Your task to perform on an android device: Show me popular videos on Youtube Image 0: 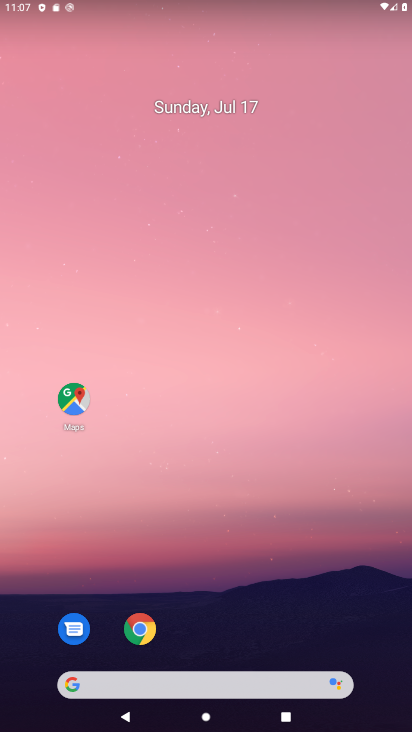
Step 0: drag from (222, 630) to (218, 251)
Your task to perform on an android device: Show me popular videos on Youtube Image 1: 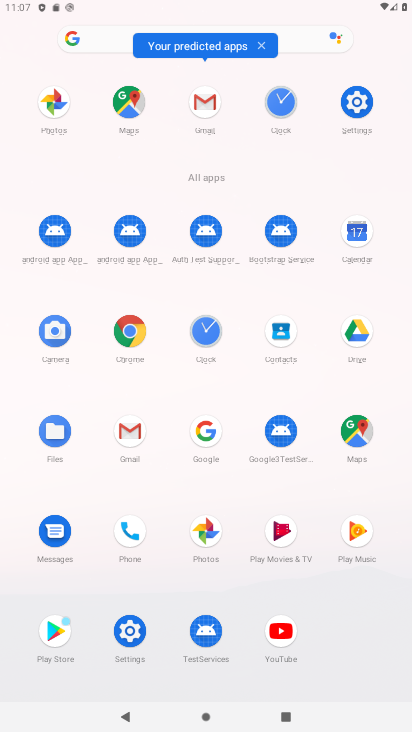
Step 1: click (278, 627)
Your task to perform on an android device: Show me popular videos on Youtube Image 2: 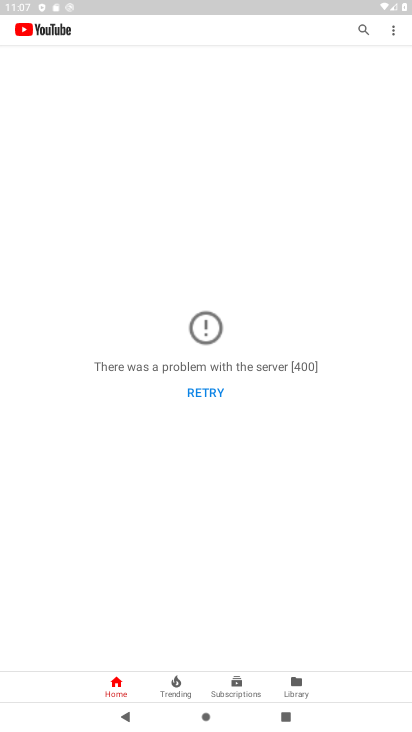
Step 2: click (357, 25)
Your task to perform on an android device: Show me popular videos on Youtube Image 3: 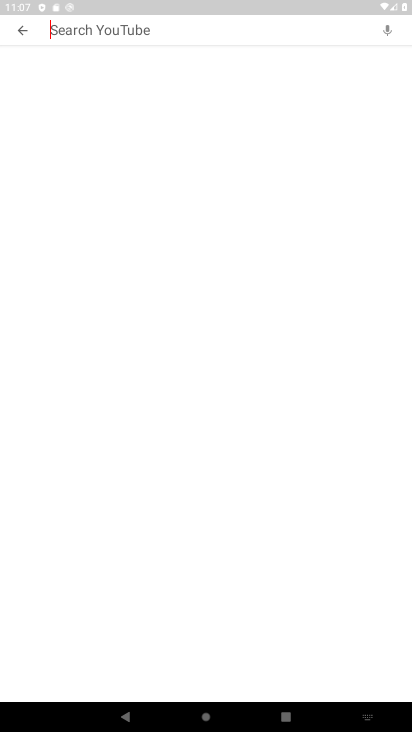
Step 3: click (164, 27)
Your task to perform on an android device: Show me popular videos on Youtube Image 4: 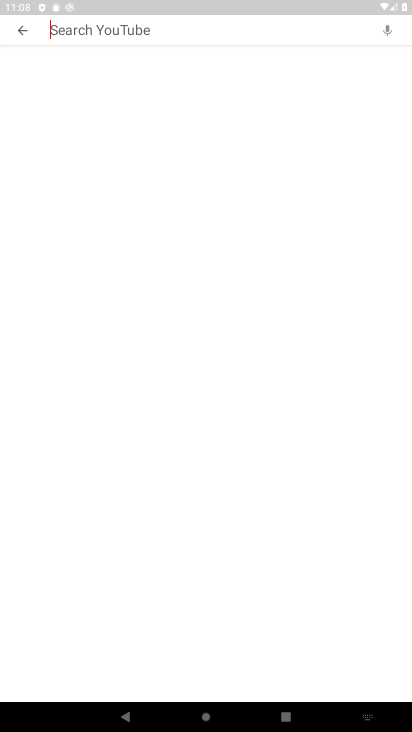
Step 4: type "delhi love "
Your task to perform on an android device: Show me popular videos on Youtube Image 5: 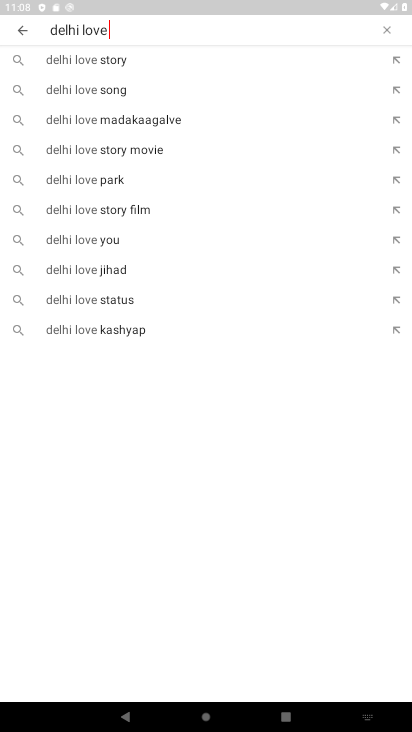
Step 5: click (99, 54)
Your task to perform on an android device: Show me popular videos on Youtube Image 6: 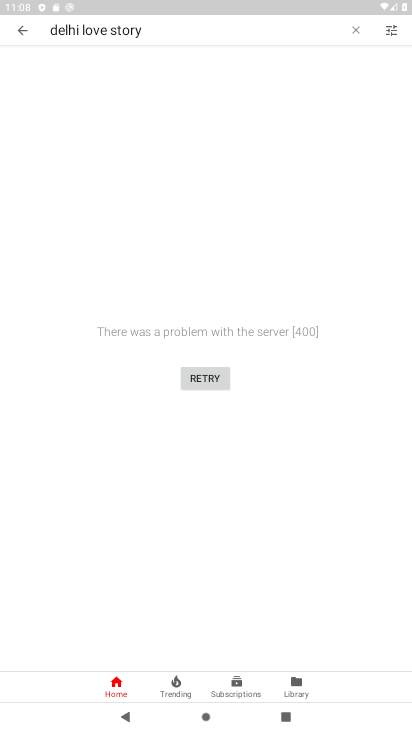
Step 6: task complete